Your task to perform on an android device: check storage Image 0: 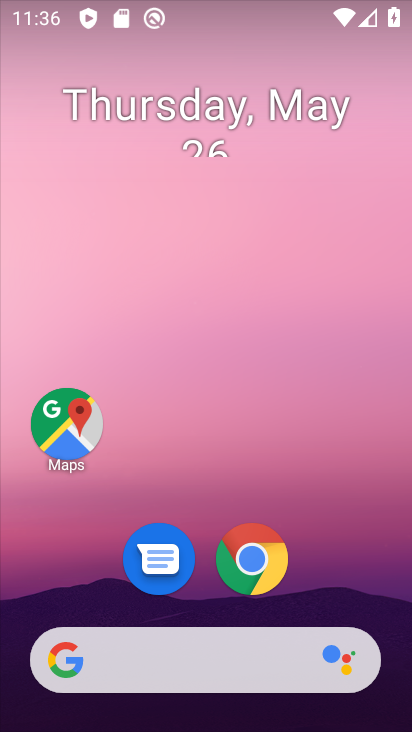
Step 0: drag from (327, 574) to (233, 33)
Your task to perform on an android device: check storage Image 1: 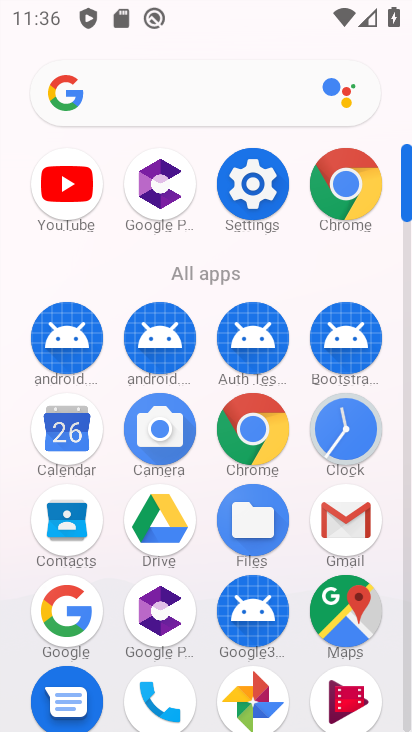
Step 1: click (240, 203)
Your task to perform on an android device: check storage Image 2: 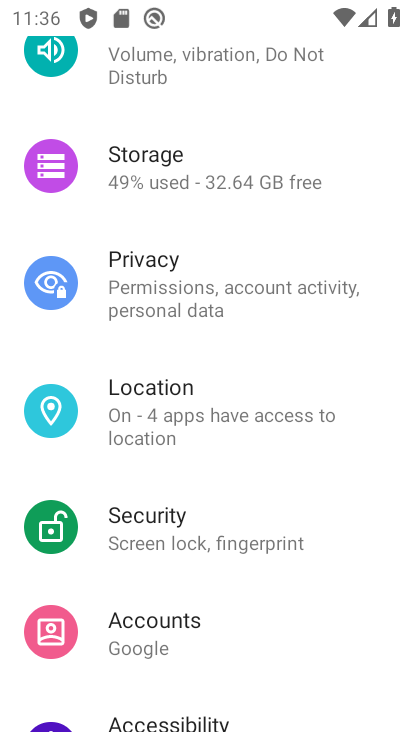
Step 2: click (224, 172)
Your task to perform on an android device: check storage Image 3: 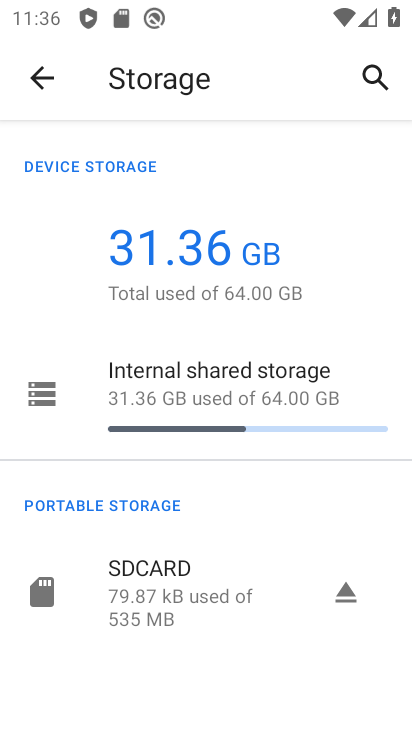
Step 3: task complete